Your task to perform on an android device: See recent photos Image 0: 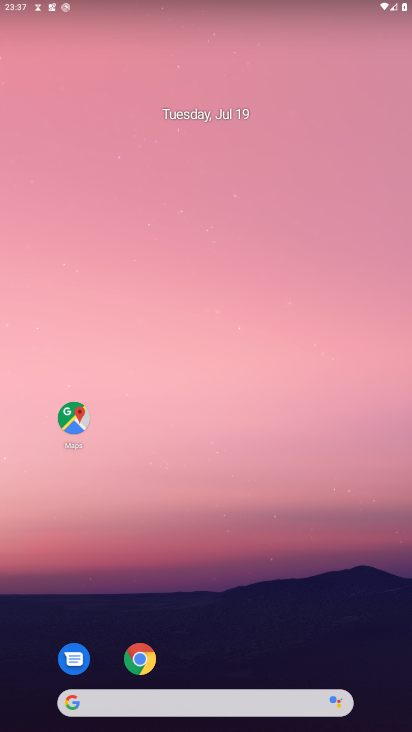
Step 0: drag from (289, 616) to (284, 243)
Your task to perform on an android device: See recent photos Image 1: 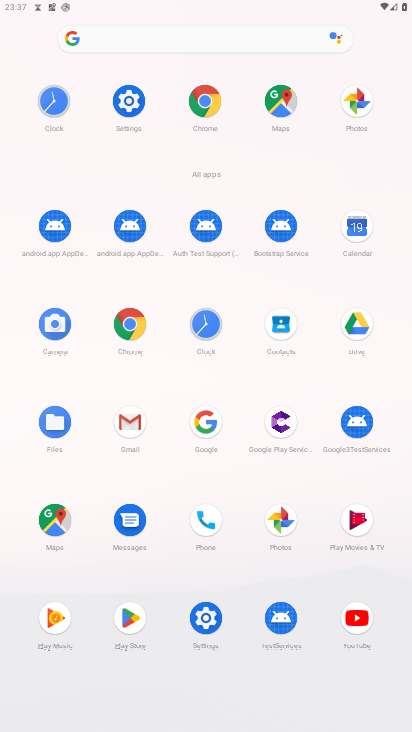
Step 1: click (346, 101)
Your task to perform on an android device: See recent photos Image 2: 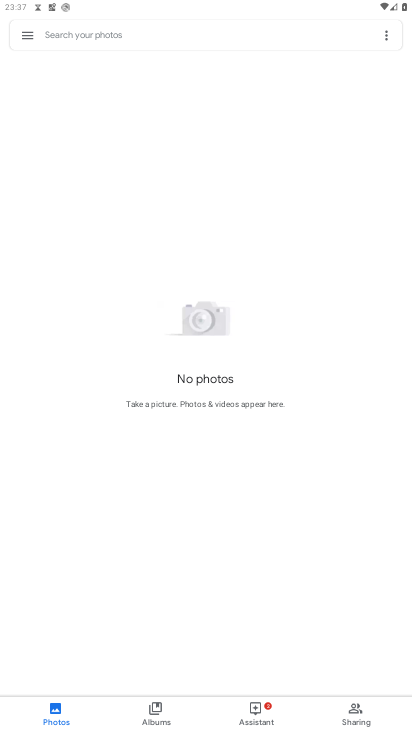
Step 2: task complete